Your task to perform on an android device: What's on my calendar today? Image 0: 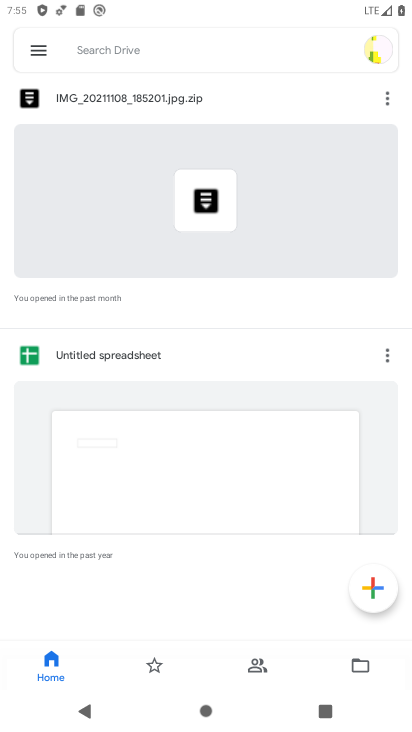
Step 0: press home button
Your task to perform on an android device: What's on my calendar today? Image 1: 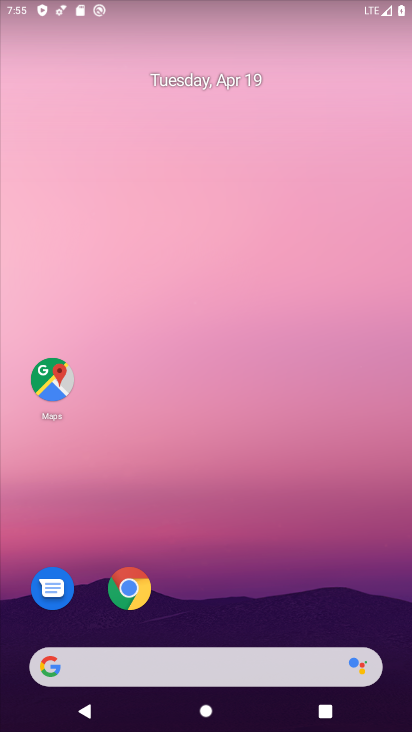
Step 1: drag from (210, 601) to (223, 82)
Your task to perform on an android device: What's on my calendar today? Image 2: 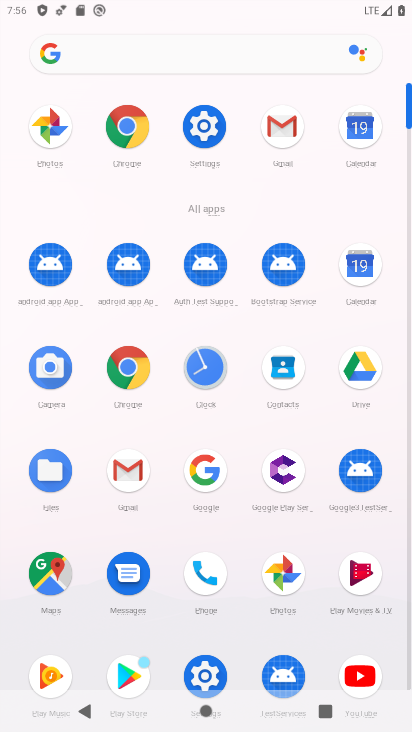
Step 2: click (361, 262)
Your task to perform on an android device: What's on my calendar today? Image 3: 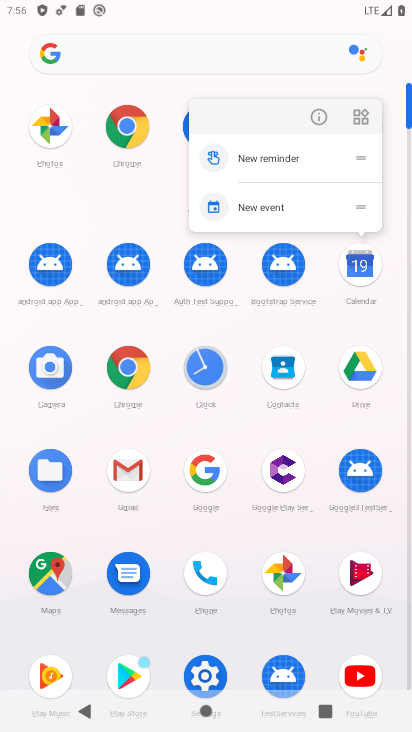
Step 3: click (357, 269)
Your task to perform on an android device: What's on my calendar today? Image 4: 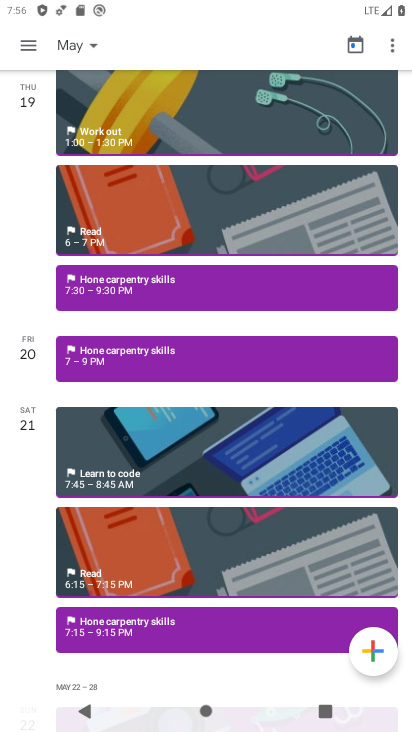
Step 4: click (21, 49)
Your task to perform on an android device: What's on my calendar today? Image 5: 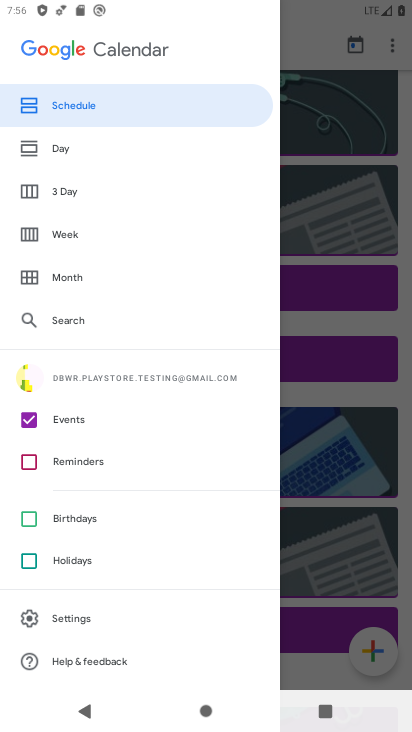
Step 5: click (44, 144)
Your task to perform on an android device: What's on my calendar today? Image 6: 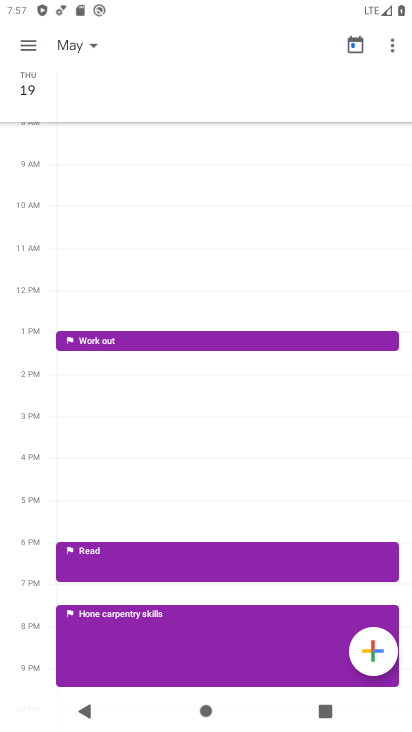
Step 6: task complete